Your task to perform on an android device: What's the weather? Image 0: 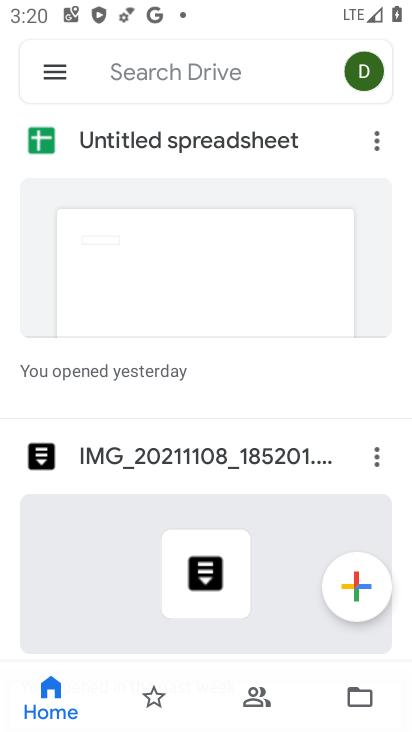
Step 0: press home button
Your task to perform on an android device: What's the weather? Image 1: 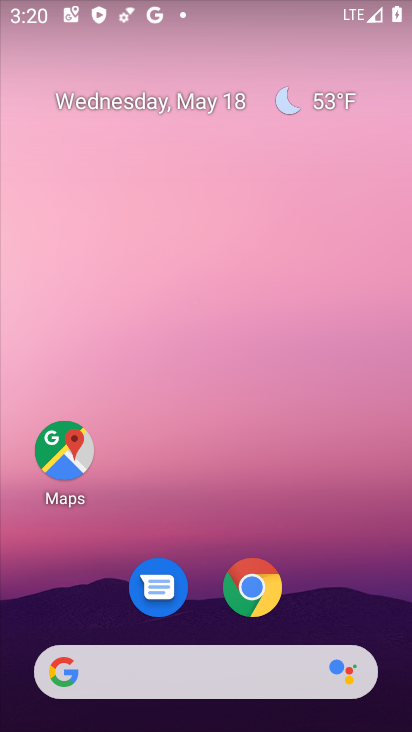
Step 1: drag from (218, 561) to (262, 140)
Your task to perform on an android device: What's the weather? Image 2: 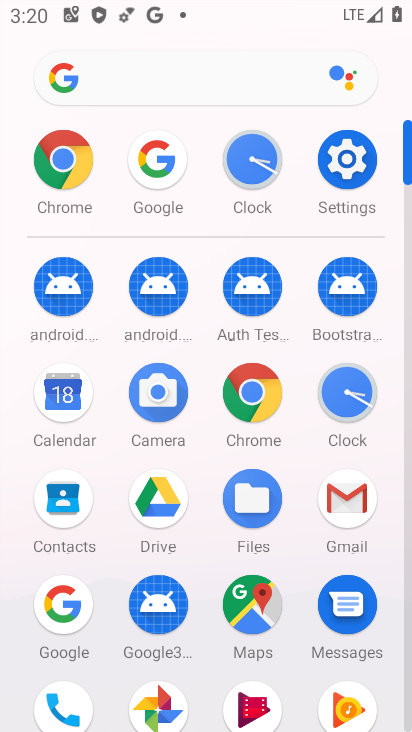
Step 2: click (70, 616)
Your task to perform on an android device: What's the weather? Image 3: 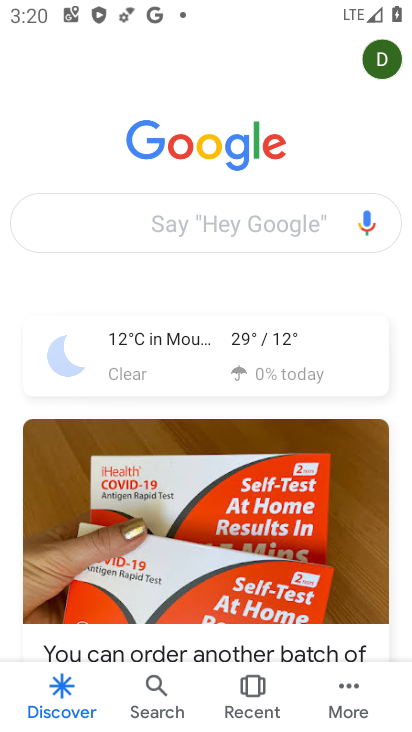
Step 3: click (259, 214)
Your task to perform on an android device: What's the weather? Image 4: 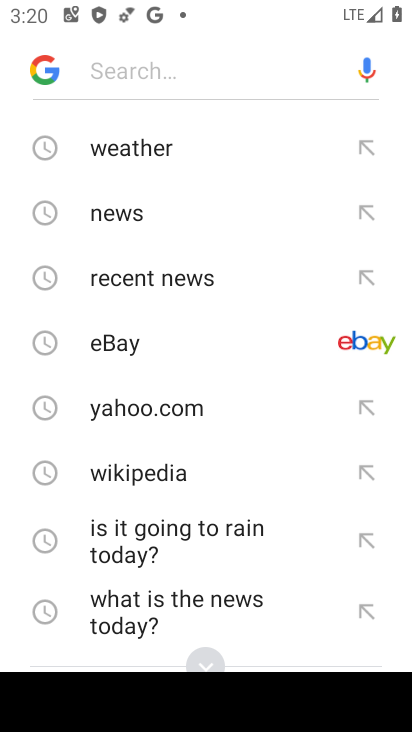
Step 4: click (167, 152)
Your task to perform on an android device: What's the weather? Image 5: 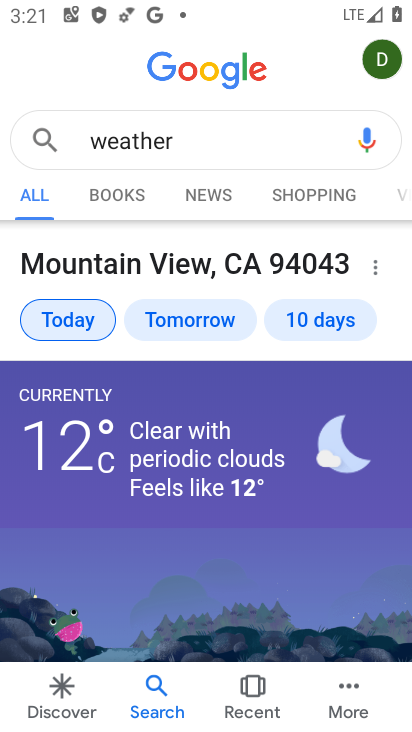
Step 5: task complete